Your task to perform on an android device: Open display settings Image 0: 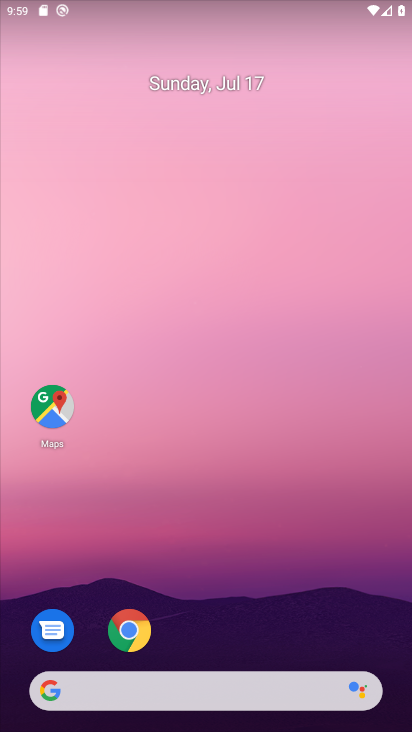
Step 0: drag from (221, 656) to (231, 219)
Your task to perform on an android device: Open display settings Image 1: 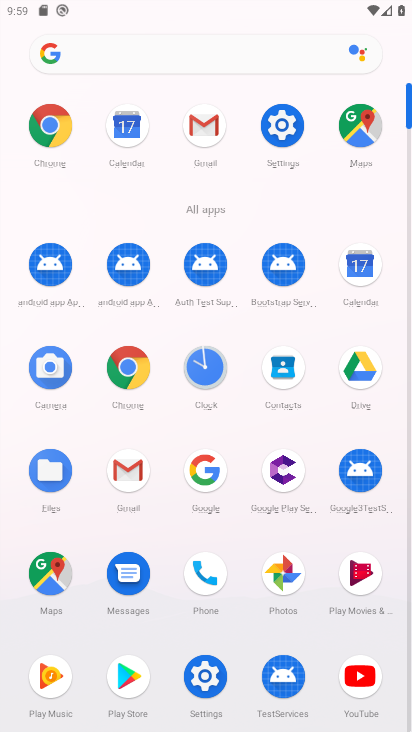
Step 1: click (213, 684)
Your task to perform on an android device: Open display settings Image 2: 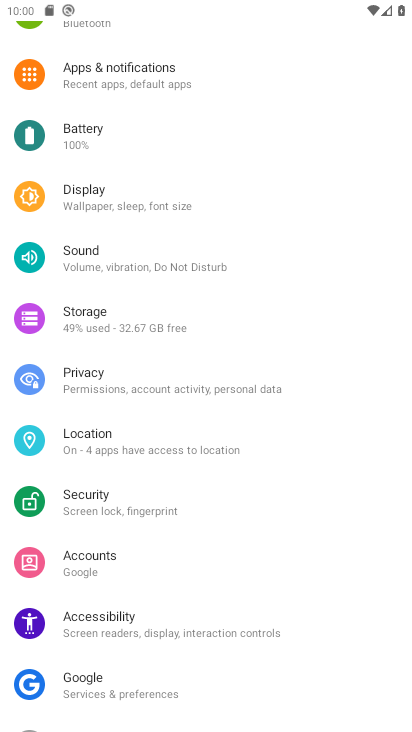
Step 2: click (106, 206)
Your task to perform on an android device: Open display settings Image 3: 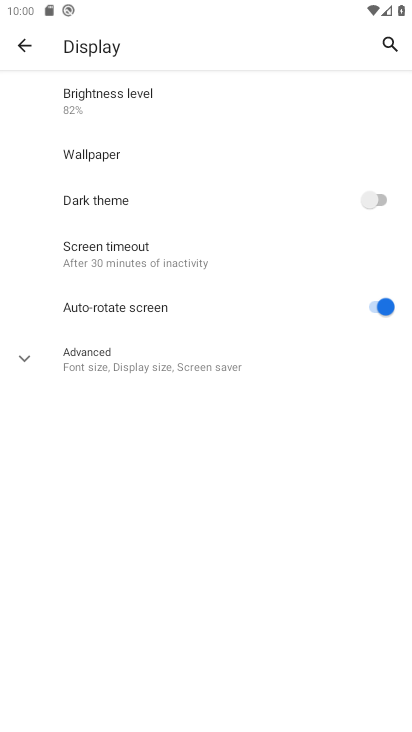
Step 3: task complete